Your task to perform on an android device: Search for Mexican restaurants on Maps Image 0: 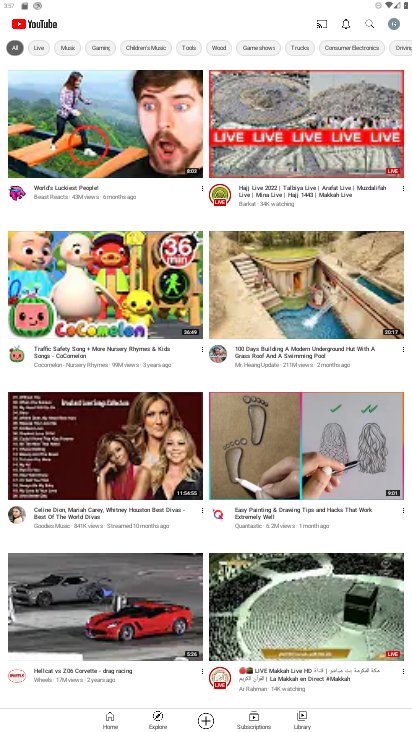
Step 0: press home button
Your task to perform on an android device: Search for Mexican restaurants on Maps Image 1: 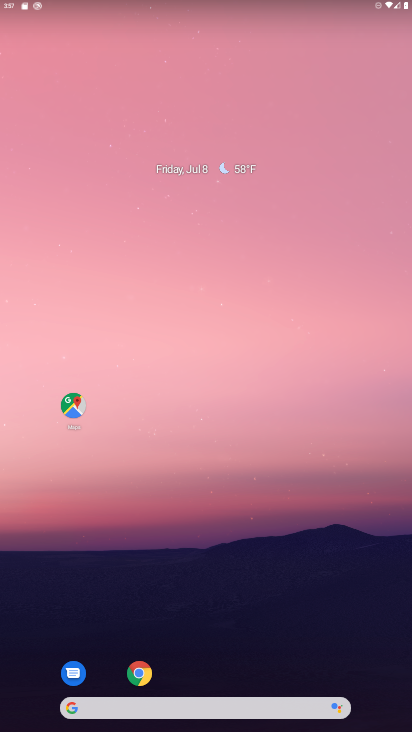
Step 1: click (67, 410)
Your task to perform on an android device: Search for Mexican restaurants on Maps Image 2: 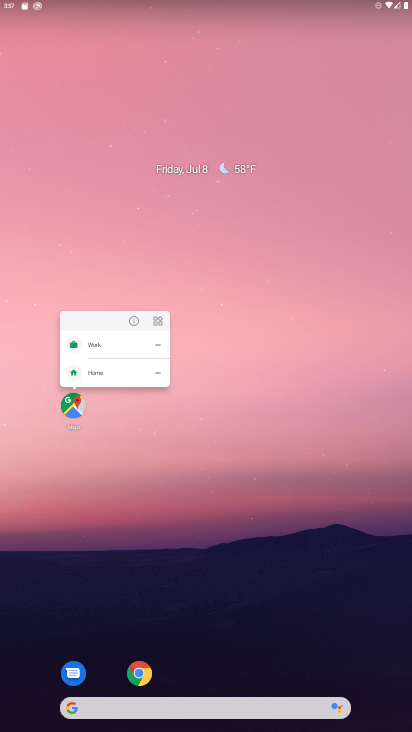
Step 2: click (67, 410)
Your task to perform on an android device: Search for Mexican restaurants on Maps Image 3: 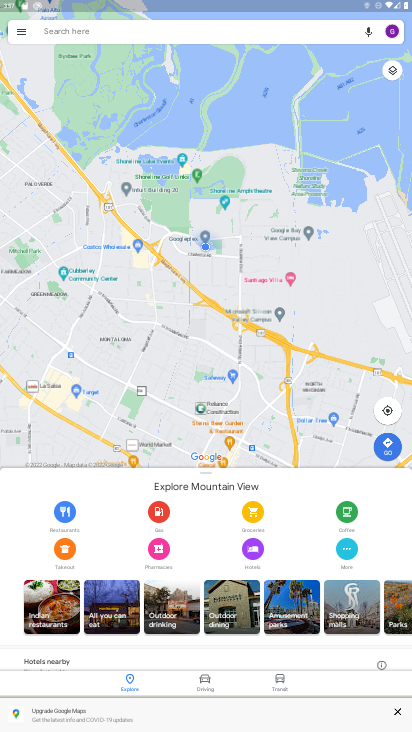
Step 3: click (188, 29)
Your task to perform on an android device: Search for Mexican restaurants on Maps Image 4: 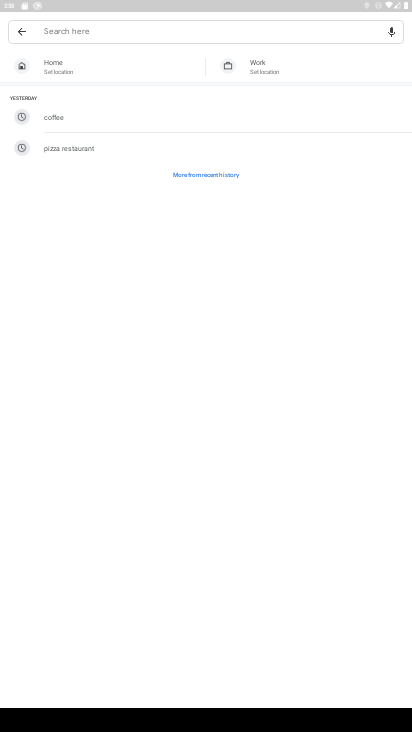
Step 4: type "mexican restaurants"
Your task to perform on an android device: Search for Mexican restaurants on Maps Image 5: 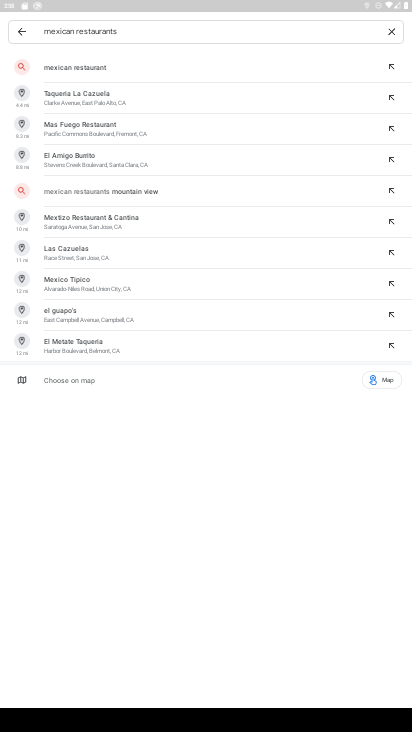
Step 5: click (94, 72)
Your task to perform on an android device: Search for Mexican restaurants on Maps Image 6: 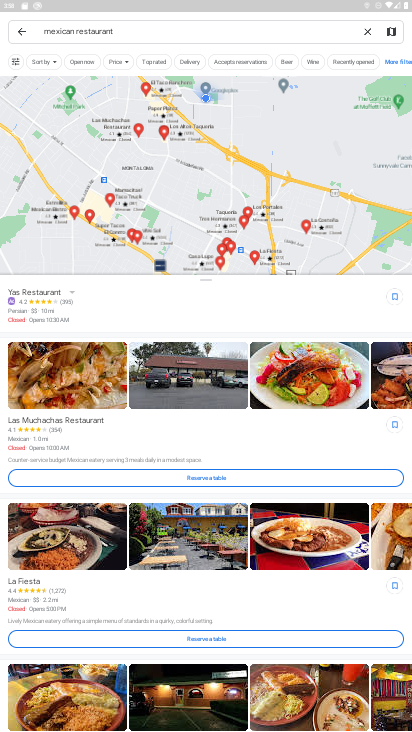
Step 6: task complete